Your task to perform on an android device: Open Google Chrome and open the bookmarks view Image 0: 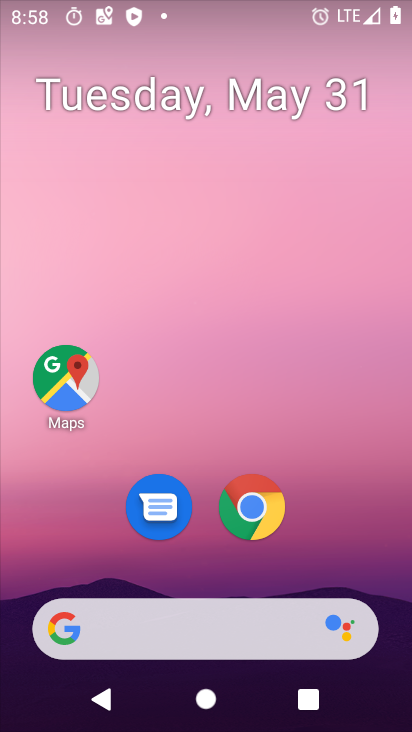
Step 0: click (251, 498)
Your task to perform on an android device: Open Google Chrome and open the bookmarks view Image 1: 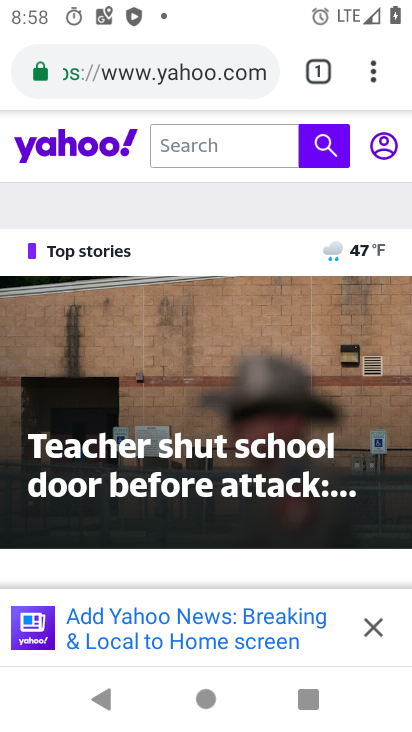
Step 1: click (370, 76)
Your task to perform on an android device: Open Google Chrome and open the bookmarks view Image 2: 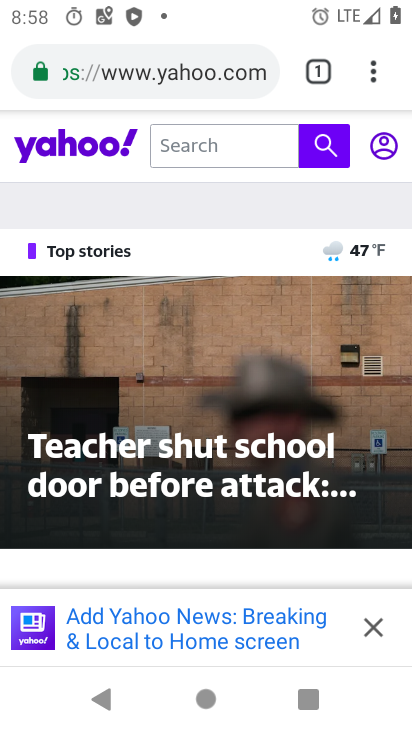
Step 2: click (374, 56)
Your task to perform on an android device: Open Google Chrome and open the bookmarks view Image 3: 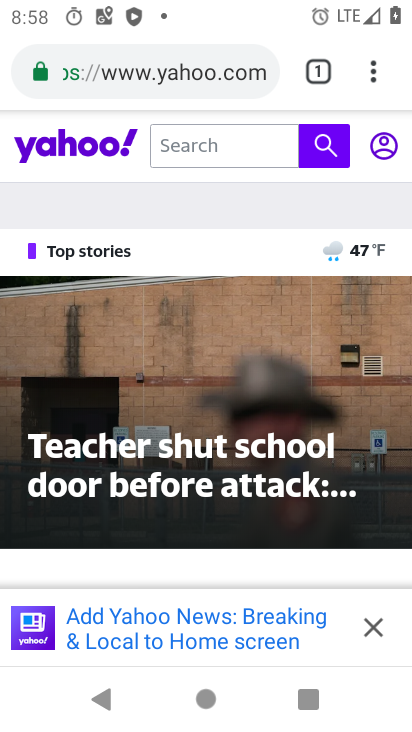
Step 3: click (372, 73)
Your task to perform on an android device: Open Google Chrome and open the bookmarks view Image 4: 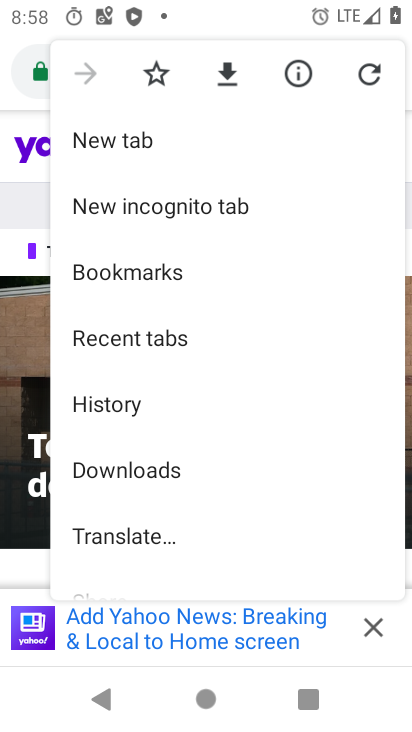
Step 4: click (153, 264)
Your task to perform on an android device: Open Google Chrome and open the bookmarks view Image 5: 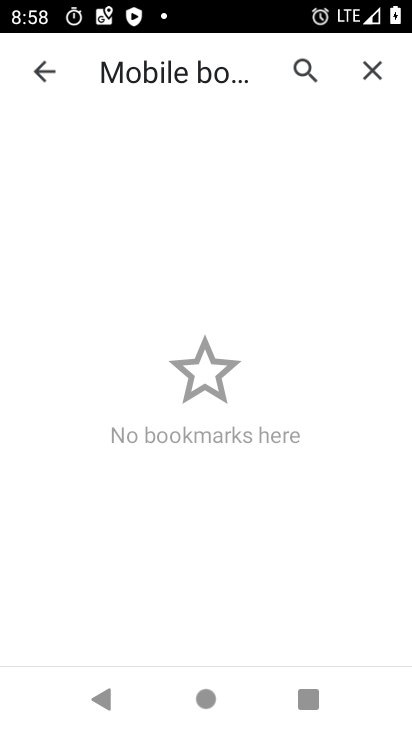
Step 5: task complete